Your task to perform on an android device: Search for vegetarian restaurants on Maps Image 0: 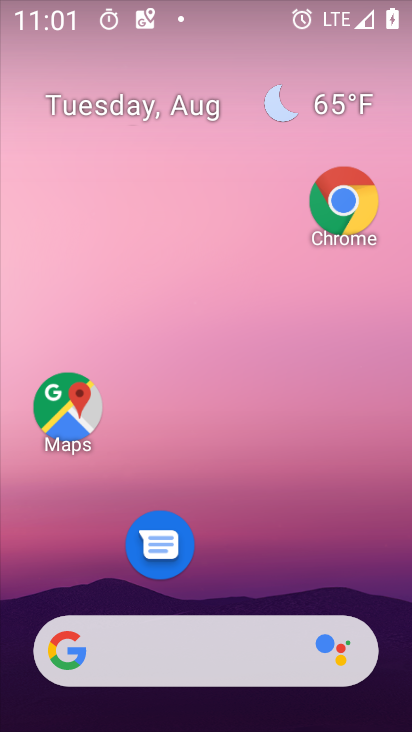
Step 0: drag from (215, 609) to (276, 168)
Your task to perform on an android device: Search for vegetarian restaurants on Maps Image 1: 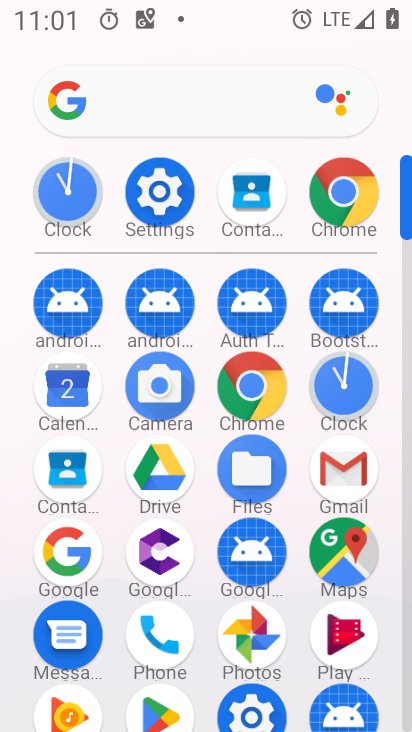
Step 1: drag from (215, 535) to (265, 341)
Your task to perform on an android device: Search for vegetarian restaurants on Maps Image 2: 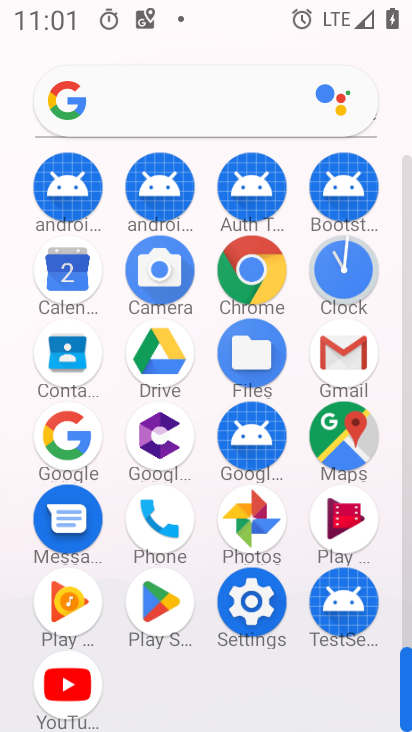
Step 2: click (350, 446)
Your task to perform on an android device: Search for vegetarian restaurants on Maps Image 3: 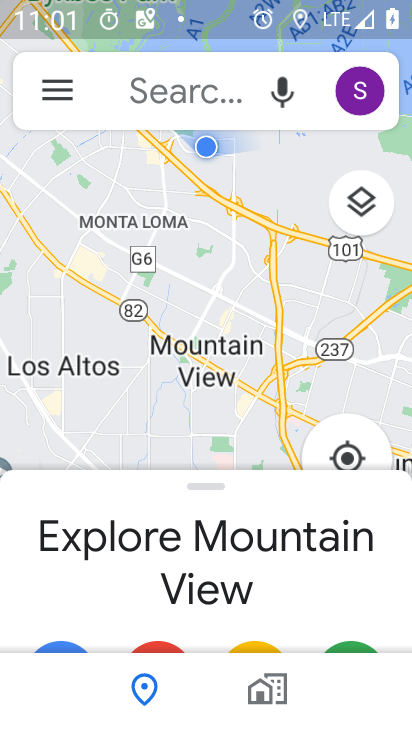
Step 3: click (200, 103)
Your task to perform on an android device: Search for vegetarian restaurants on Maps Image 4: 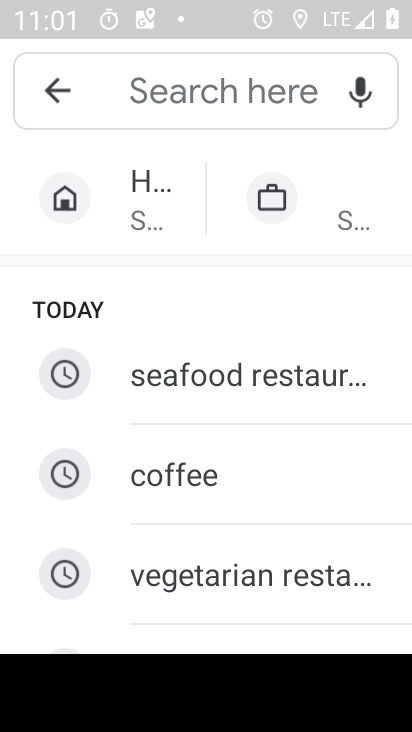
Step 4: click (206, 100)
Your task to perform on an android device: Search for vegetarian restaurants on Maps Image 5: 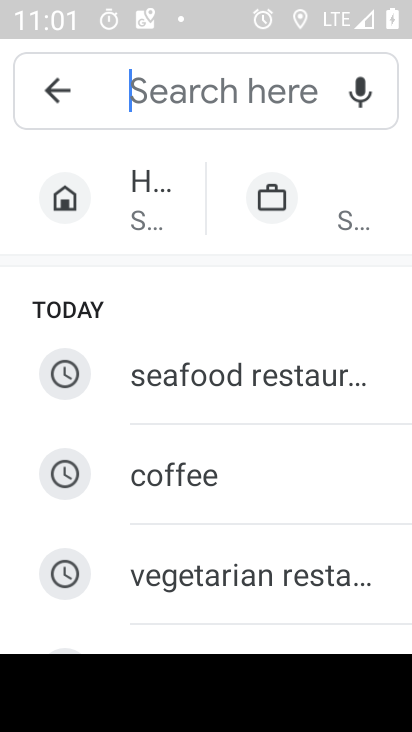
Step 5: click (250, 585)
Your task to perform on an android device: Search for vegetarian restaurants on Maps Image 6: 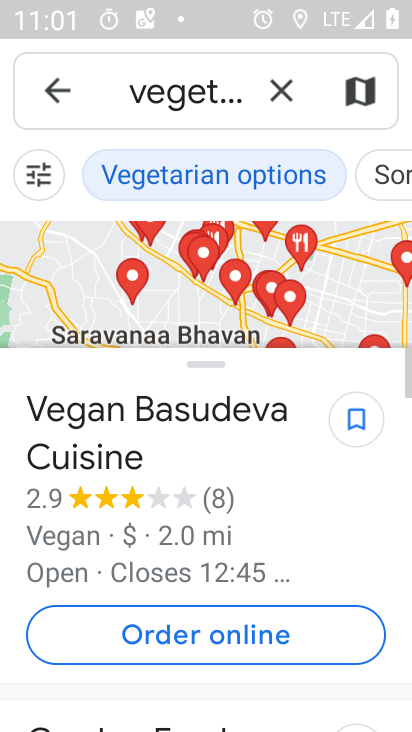
Step 6: task complete